Your task to perform on an android device: turn off notifications settings in the gmail app Image 0: 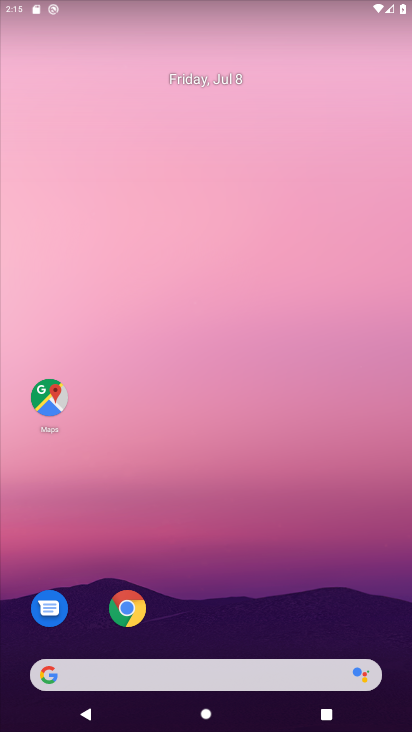
Step 0: drag from (218, 646) to (295, 201)
Your task to perform on an android device: turn off notifications settings in the gmail app Image 1: 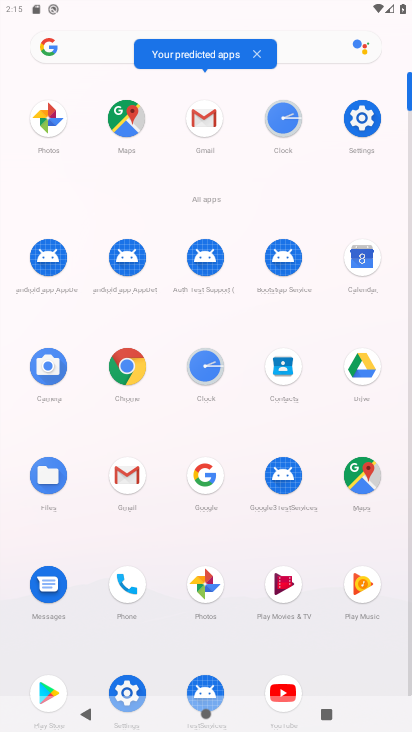
Step 1: click (135, 483)
Your task to perform on an android device: turn off notifications settings in the gmail app Image 2: 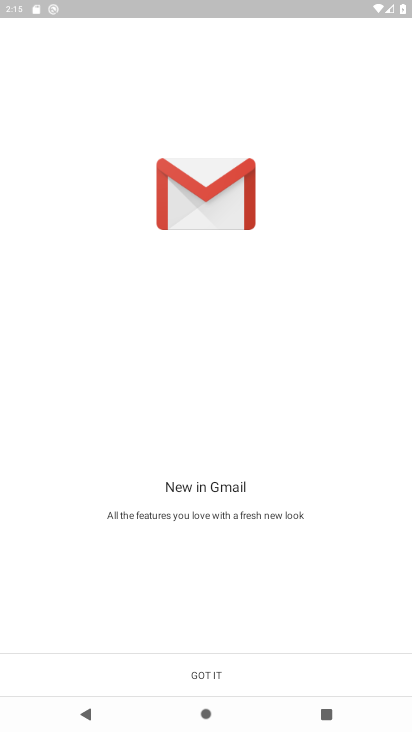
Step 2: click (223, 676)
Your task to perform on an android device: turn off notifications settings in the gmail app Image 3: 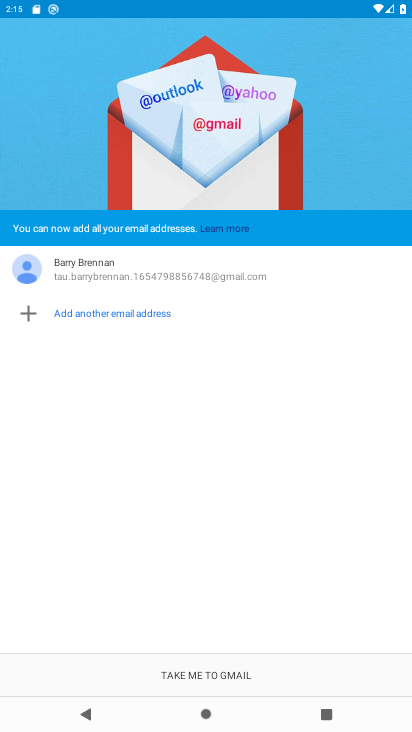
Step 3: click (223, 676)
Your task to perform on an android device: turn off notifications settings in the gmail app Image 4: 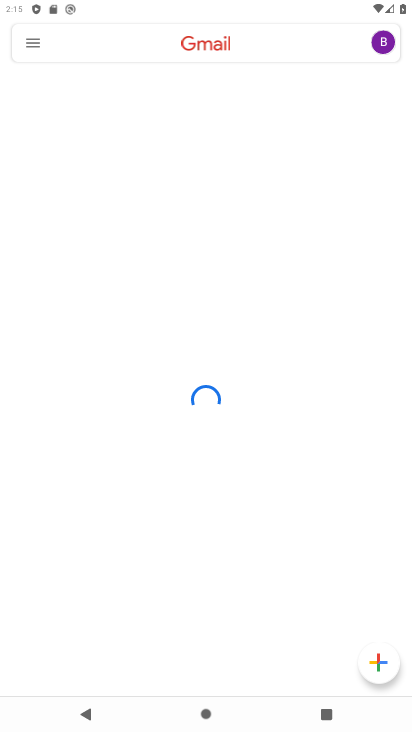
Step 4: click (39, 49)
Your task to perform on an android device: turn off notifications settings in the gmail app Image 5: 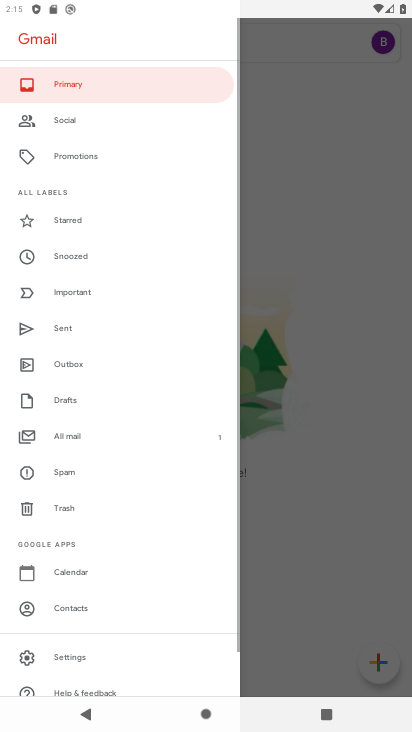
Step 5: drag from (67, 649) to (122, 292)
Your task to perform on an android device: turn off notifications settings in the gmail app Image 6: 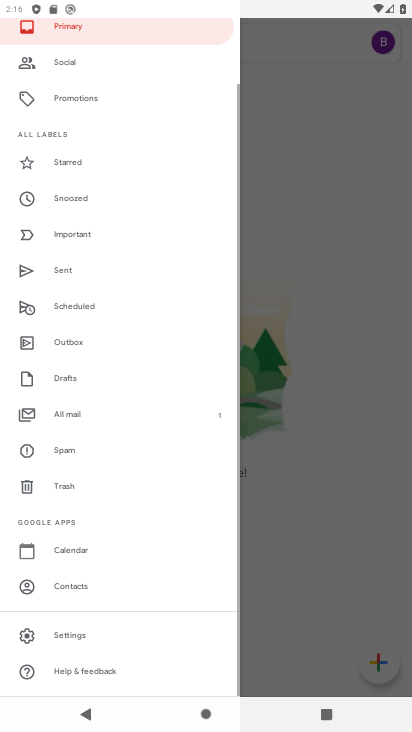
Step 6: click (80, 629)
Your task to perform on an android device: turn off notifications settings in the gmail app Image 7: 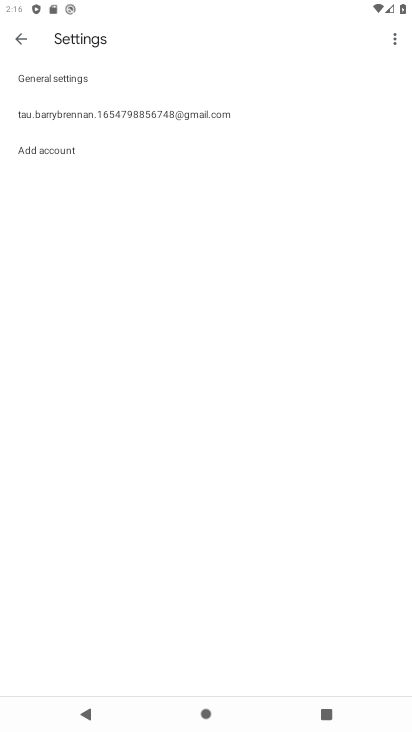
Step 7: click (174, 129)
Your task to perform on an android device: turn off notifications settings in the gmail app Image 8: 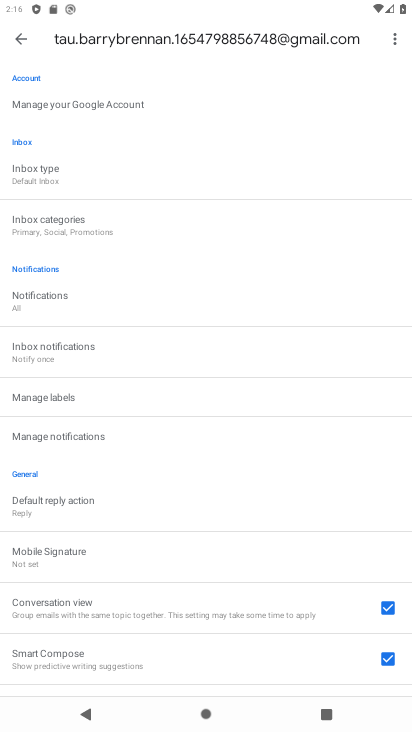
Step 8: click (108, 430)
Your task to perform on an android device: turn off notifications settings in the gmail app Image 9: 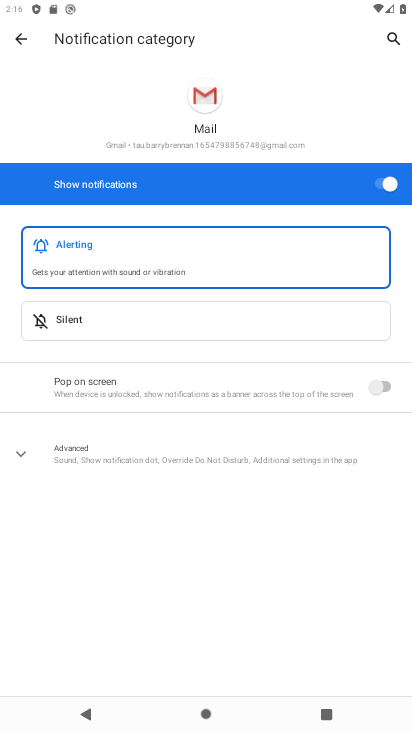
Step 9: click (377, 186)
Your task to perform on an android device: turn off notifications settings in the gmail app Image 10: 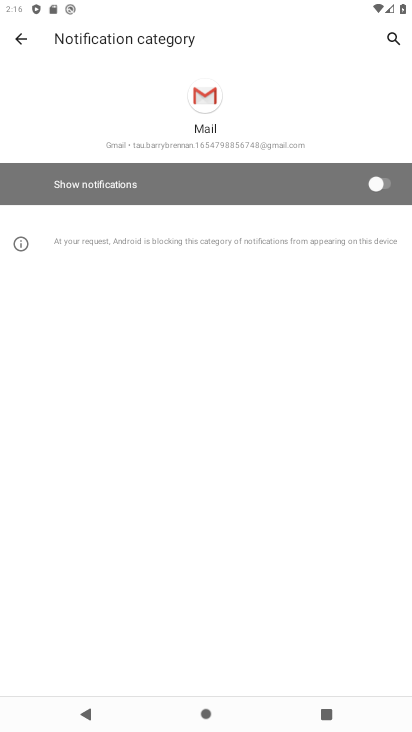
Step 10: task complete